Your task to perform on an android device: Open Chrome and go to the settings page Image 0: 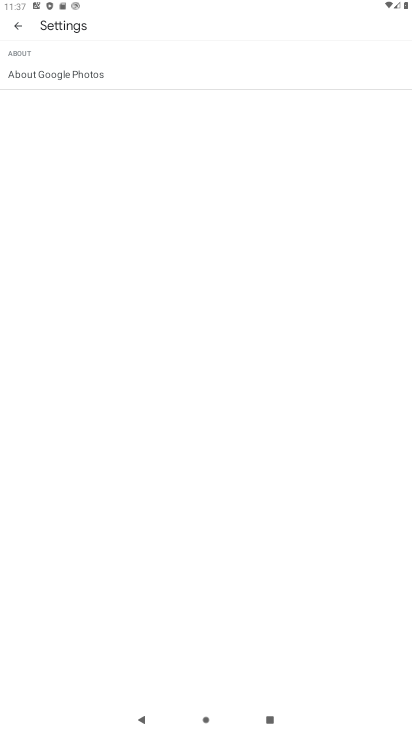
Step 0: press home button
Your task to perform on an android device: Open Chrome and go to the settings page Image 1: 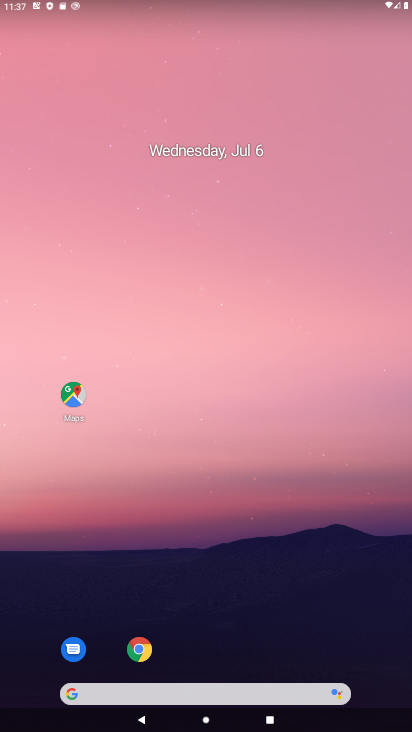
Step 1: click (129, 652)
Your task to perform on an android device: Open Chrome and go to the settings page Image 2: 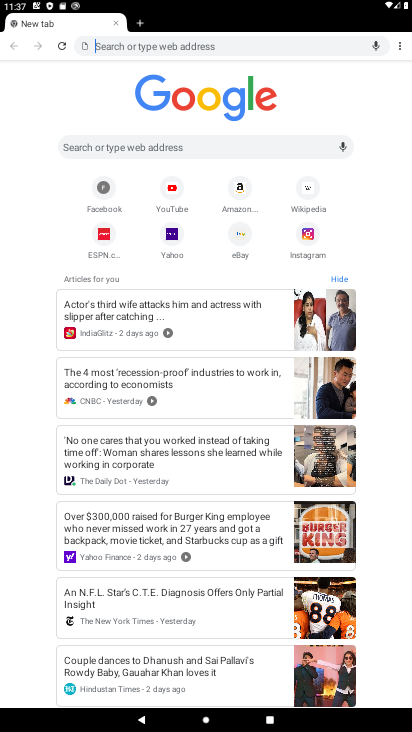
Step 2: click (403, 43)
Your task to perform on an android device: Open Chrome and go to the settings page Image 3: 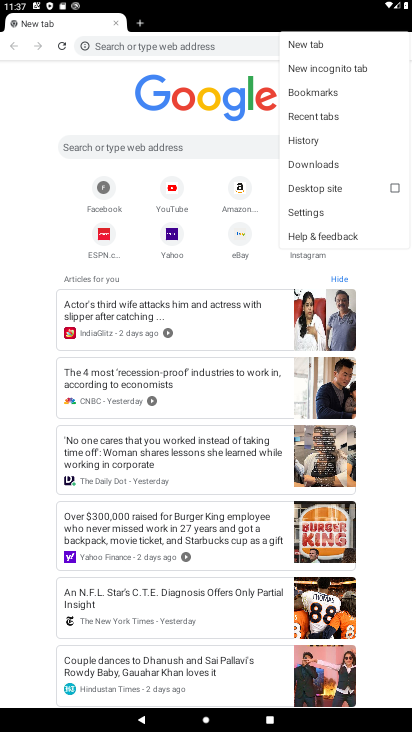
Step 3: click (307, 210)
Your task to perform on an android device: Open Chrome and go to the settings page Image 4: 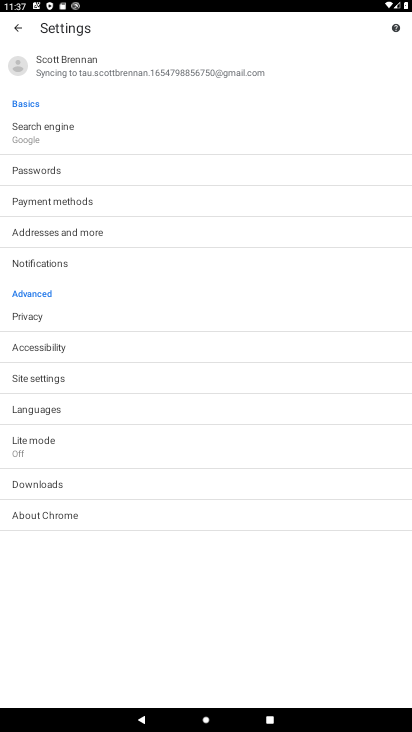
Step 4: task complete